Your task to perform on an android device: Open notification settings Image 0: 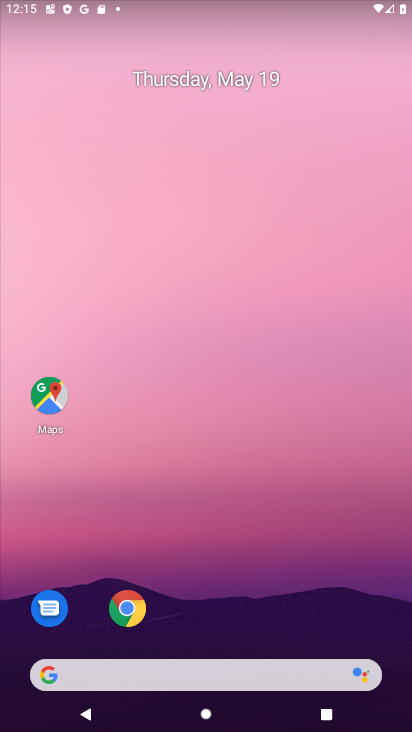
Step 0: drag from (247, 605) to (270, 207)
Your task to perform on an android device: Open notification settings Image 1: 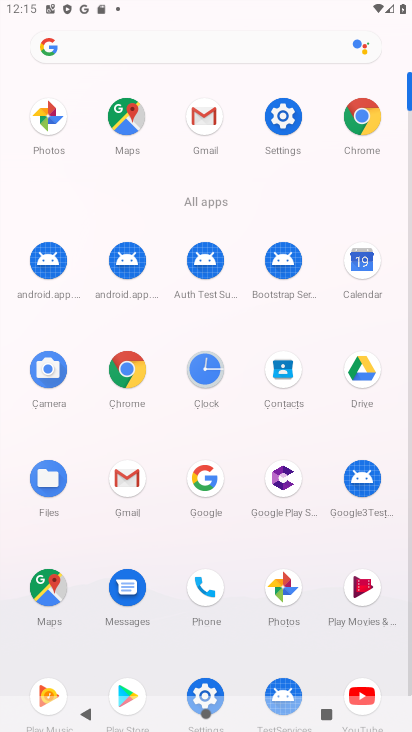
Step 1: click (282, 115)
Your task to perform on an android device: Open notification settings Image 2: 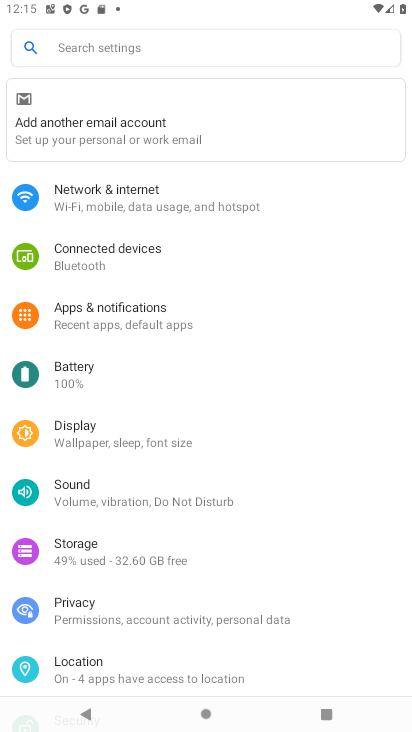
Step 2: click (138, 308)
Your task to perform on an android device: Open notification settings Image 3: 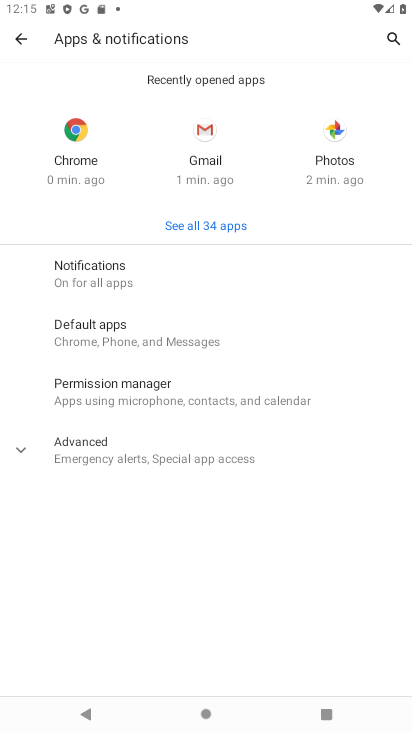
Step 3: click (134, 284)
Your task to perform on an android device: Open notification settings Image 4: 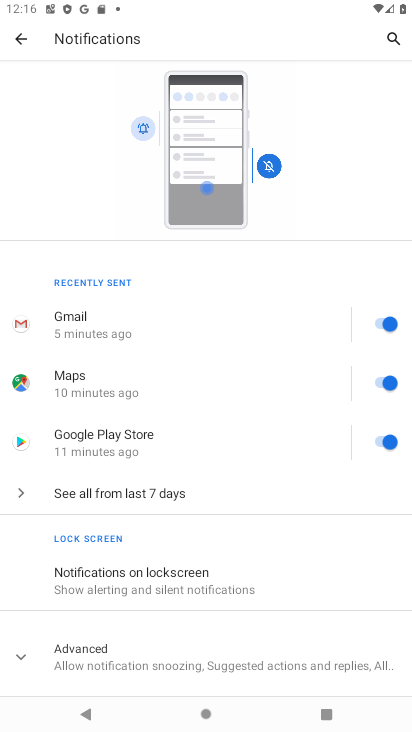
Step 4: task complete